Your task to perform on an android device: Go to location settings Image 0: 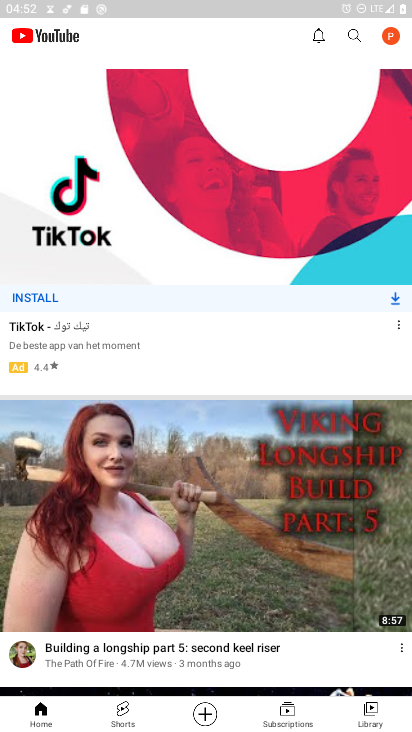
Step 0: press home button
Your task to perform on an android device: Go to location settings Image 1: 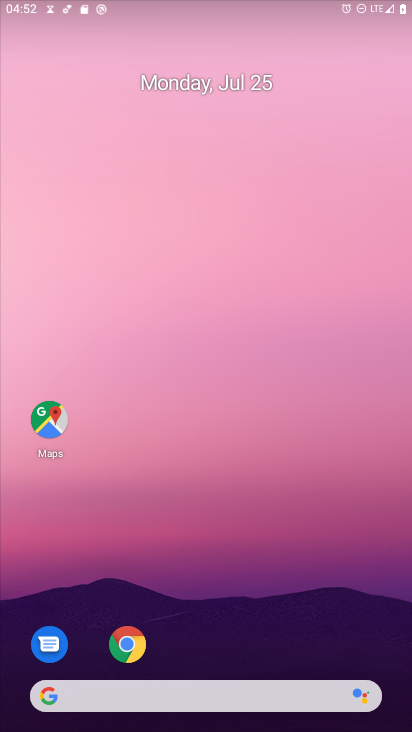
Step 1: drag from (304, 603) to (283, 154)
Your task to perform on an android device: Go to location settings Image 2: 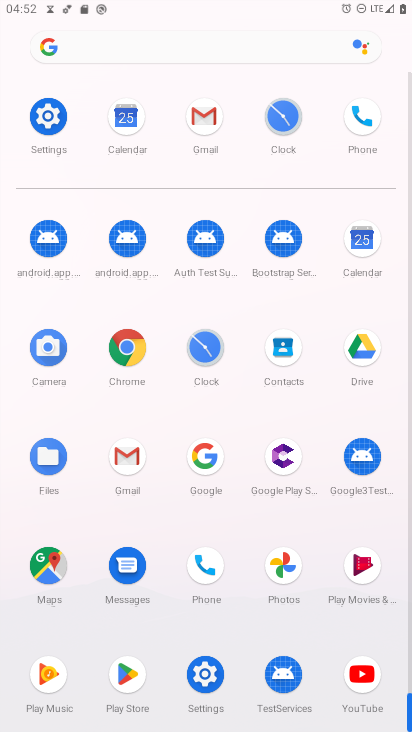
Step 2: click (41, 114)
Your task to perform on an android device: Go to location settings Image 3: 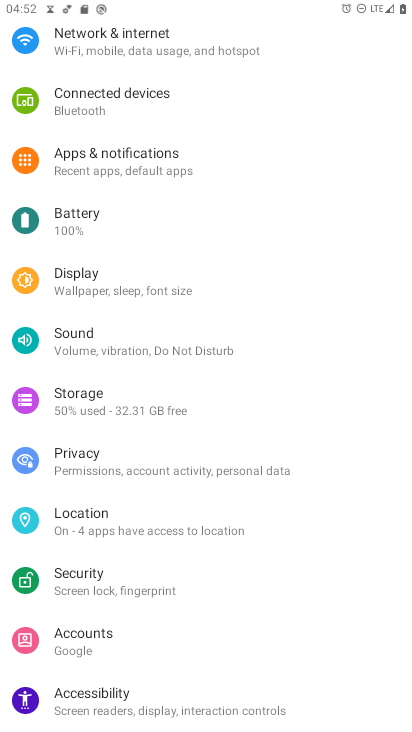
Step 3: click (110, 517)
Your task to perform on an android device: Go to location settings Image 4: 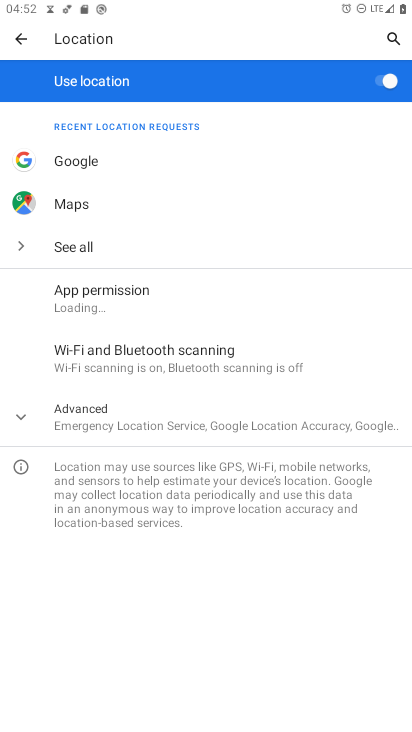
Step 4: task complete